Your task to perform on an android device: Open the stopwatch Image 0: 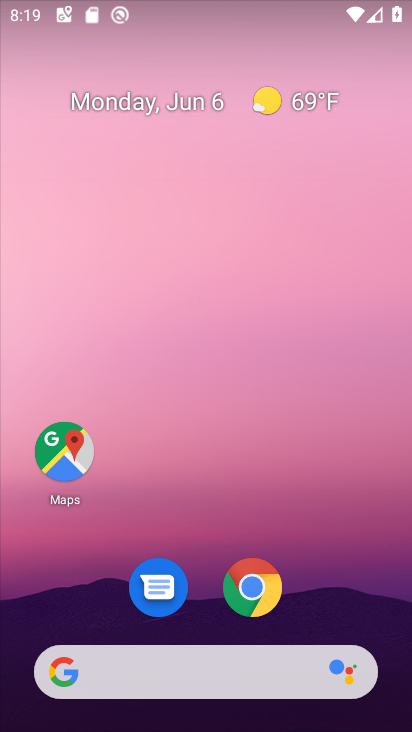
Step 0: drag from (353, 583) to (329, 95)
Your task to perform on an android device: Open the stopwatch Image 1: 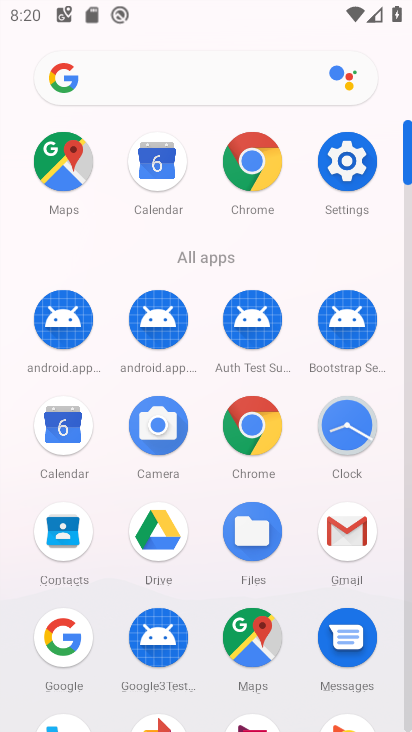
Step 1: click (347, 437)
Your task to perform on an android device: Open the stopwatch Image 2: 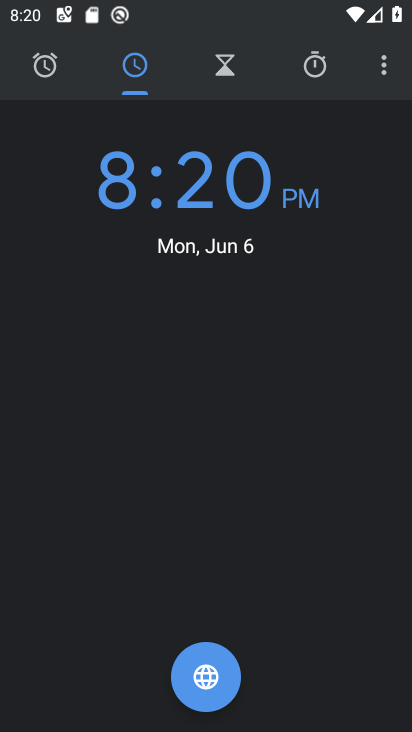
Step 2: click (313, 72)
Your task to perform on an android device: Open the stopwatch Image 3: 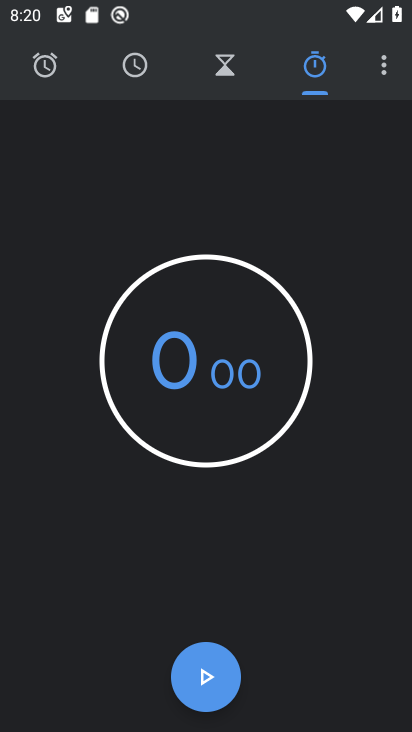
Step 3: click (222, 696)
Your task to perform on an android device: Open the stopwatch Image 4: 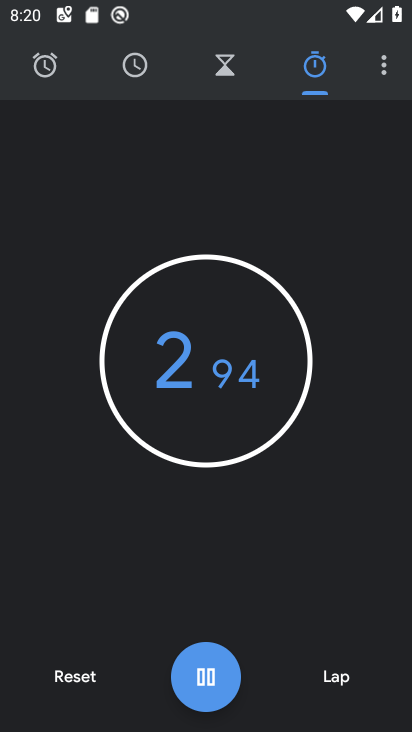
Step 4: click (220, 695)
Your task to perform on an android device: Open the stopwatch Image 5: 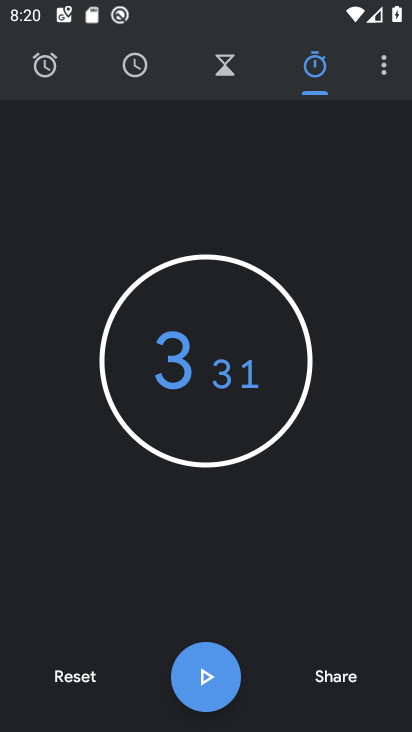
Step 5: task complete